Your task to perform on an android device: Show me the alarms in the clock app Image 0: 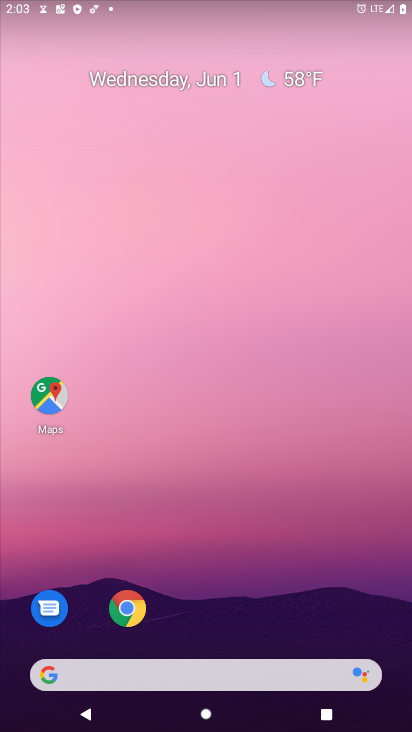
Step 0: click (145, 613)
Your task to perform on an android device: Show me the alarms in the clock app Image 1: 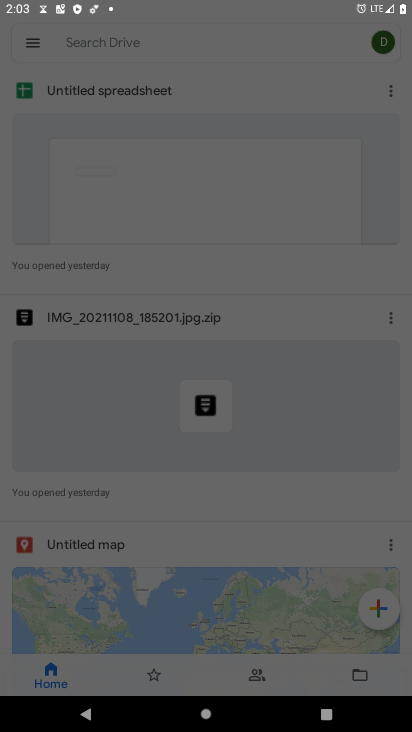
Step 1: press home button
Your task to perform on an android device: Show me the alarms in the clock app Image 2: 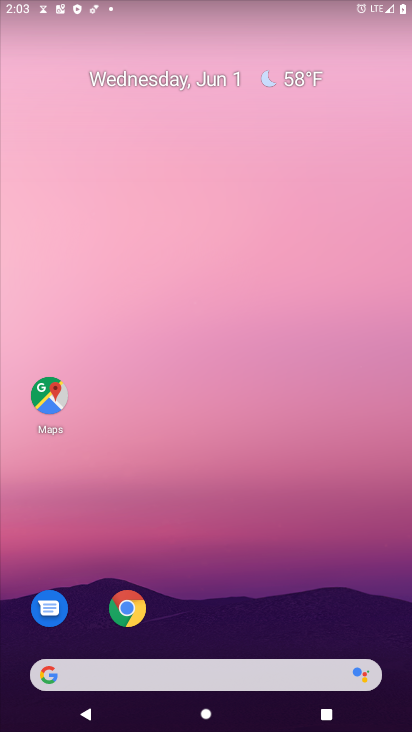
Step 2: drag from (290, 527) to (253, 192)
Your task to perform on an android device: Show me the alarms in the clock app Image 3: 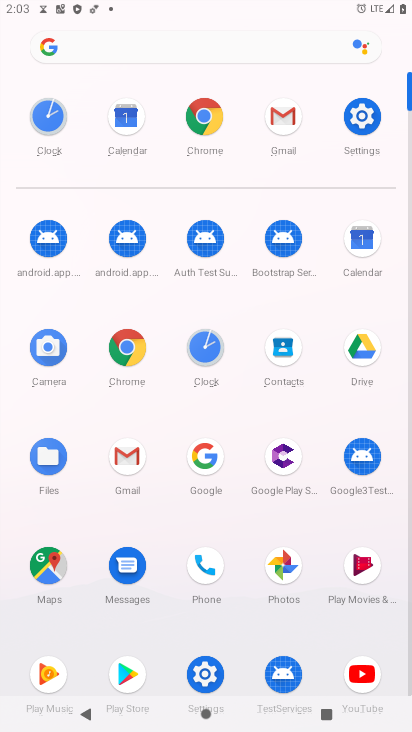
Step 3: click (64, 121)
Your task to perform on an android device: Show me the alarms in the clock app Image 4: 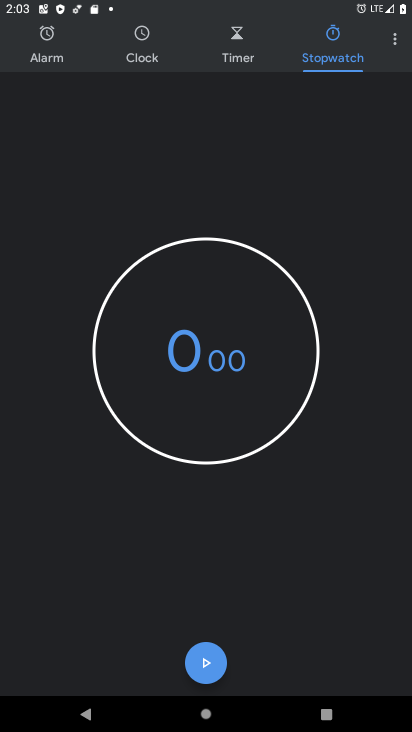
Step 4: click (72, 55)
Your task to perform on an android device: Show me the alarms in the clock app Image 5: 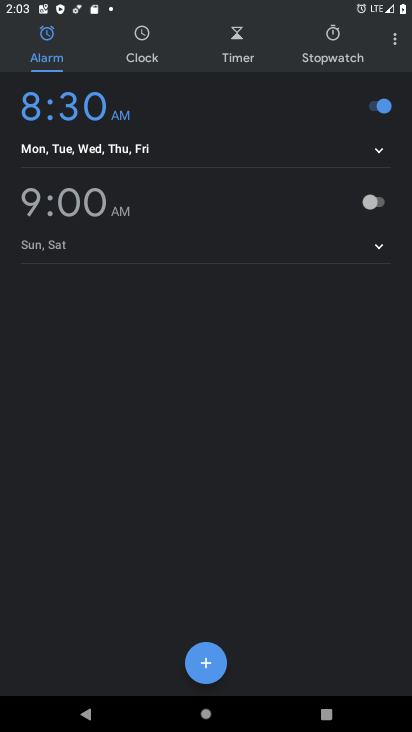
Step 5: task complete